Your task to perform on an android device: turn on the 12-hour format for clock Image 0: 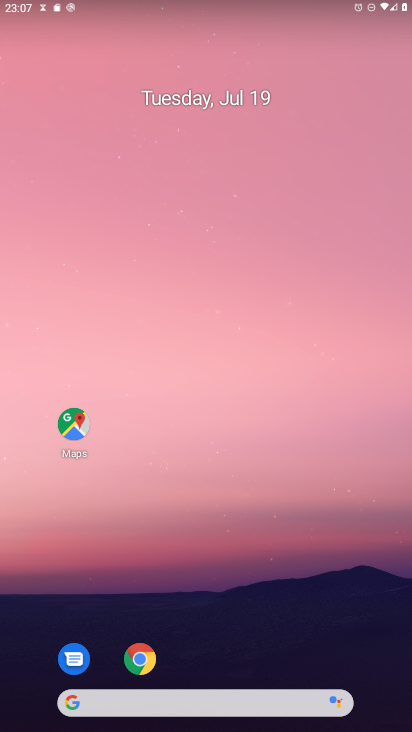
Step 0: drag from (299, 602) to (296, 153)
Your task to perform on an android device: turn on the 12-hour format for clock Image 1: 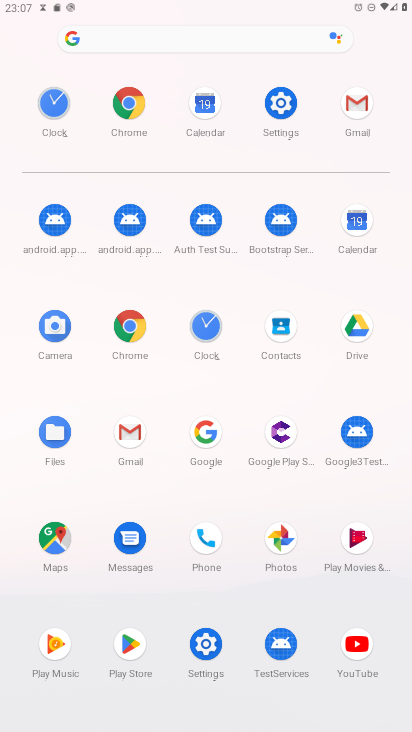
Step 1: click (208, 330)
Your task to perform on an android device: turn on the 12-hour format for clock Image 2: 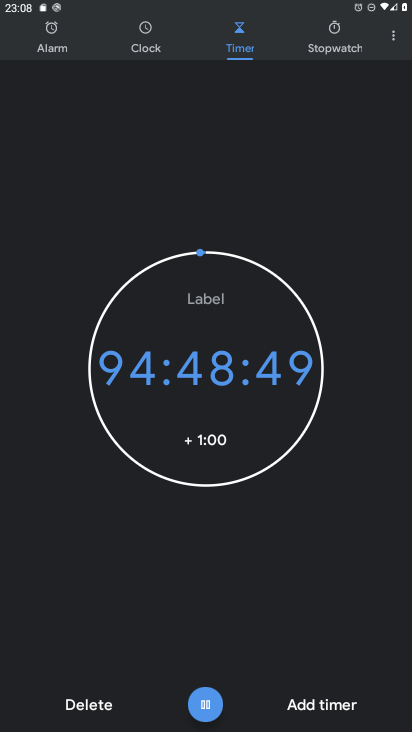
Step 2: click (401, 35)
Your task to perform on an android device: turn on the 12-hour format for clock Image 3: 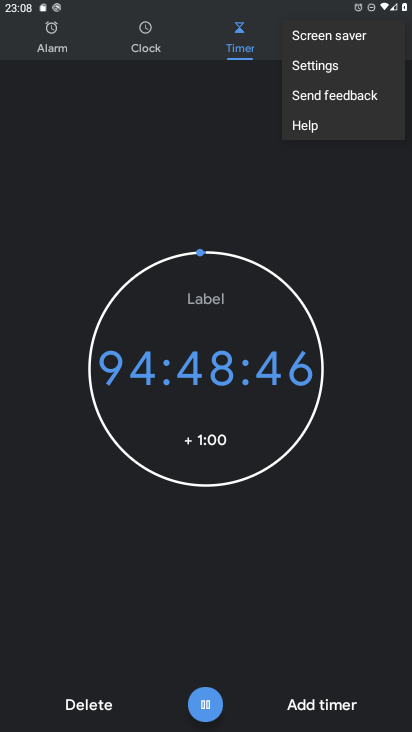
Step 3: click (306, 58)
Your task to perform on an android device: turn on the 12-hour format for clock Image 4: 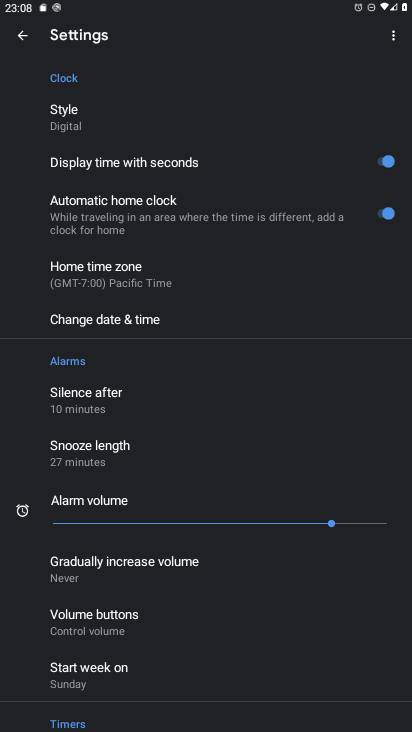
Step 4: click (143, 315)
Your task to perform on an android device: turn on the 12-hour format for clock Image 5: 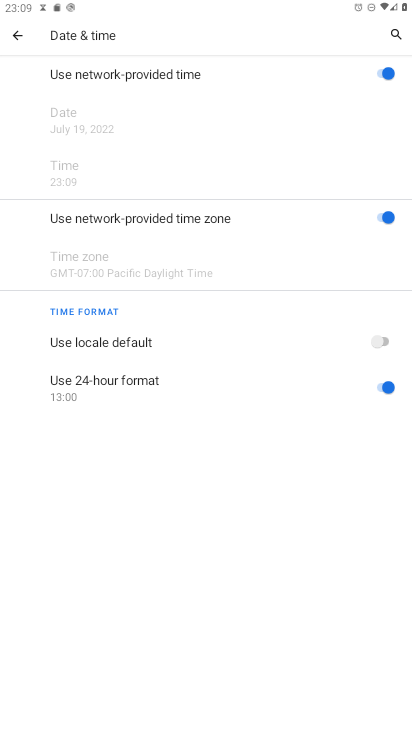
Step 5: task complete